Your task to perform on an android device: open app "LiveIn - Share Your Moment" (install if not already installed) and go to login screen Image 0: 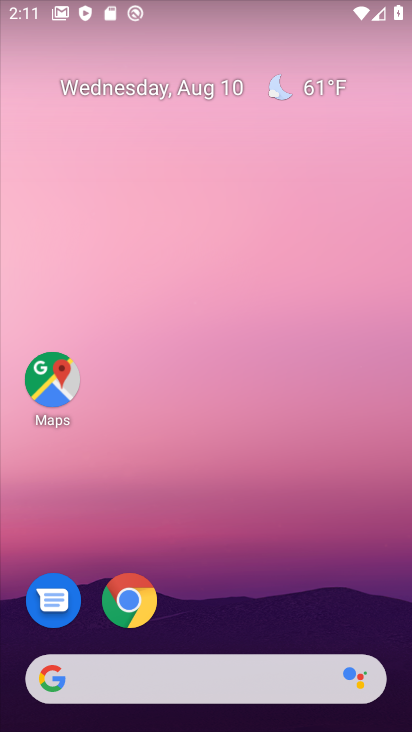
Step 0: drag from (285, 196) to (285, 82)
Your task to perform on an android device: open app "LiveIn - Share Your Moment" (install if not already installed) and go to login screen Image 1: 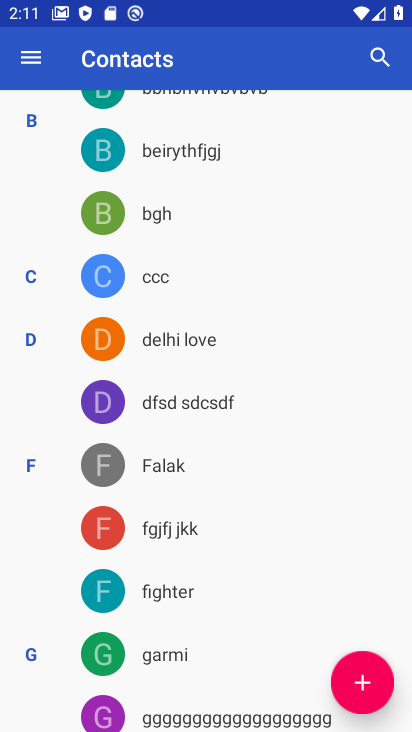
Step 1: press back button
Your task to perform on an android device: open app "LiveIn - Share Your Moment" (install if not already installed) and go to login screen Image 2: 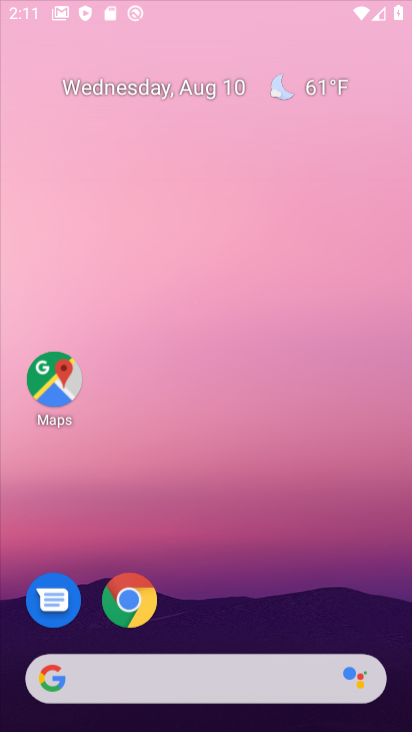
Step 2: press back button
Your task to perform on an android device: open app "LiveIn - Share Your Moment" (install if not already installed) and go to login screen Image 3: 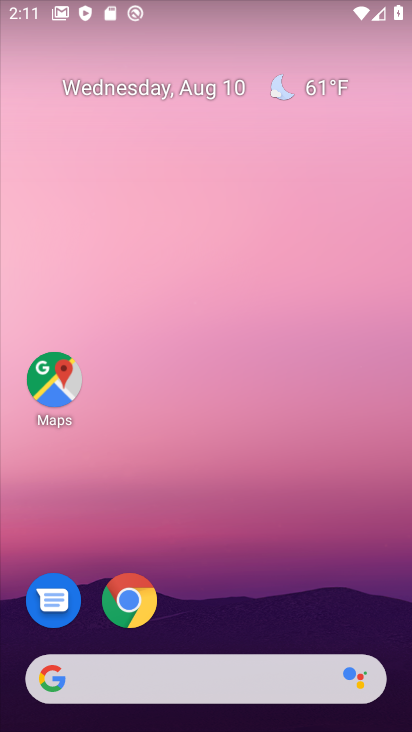
Step 3: drag from (230, 441) to (242, 59)
Your task to perform on an android device: open app "LiveIn - Share Your Moment" (install if not already installed) and go to login screen Image 4: 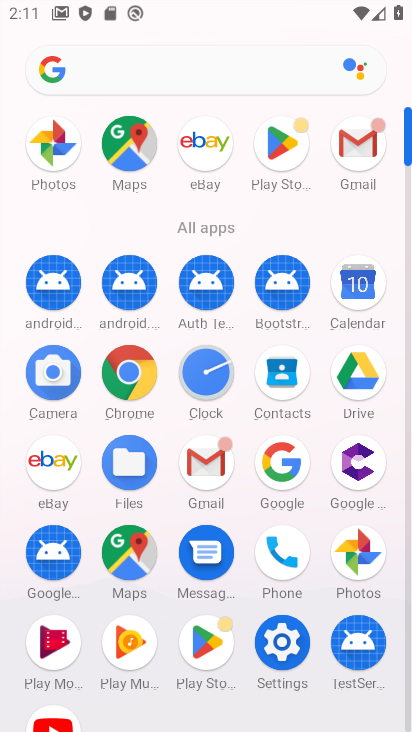
Step 4: click (292, 155)
Your task to perform on an android device: open app "LiveIn - Share Your Moment" (install if not already installed) and go to login screen Image 5: 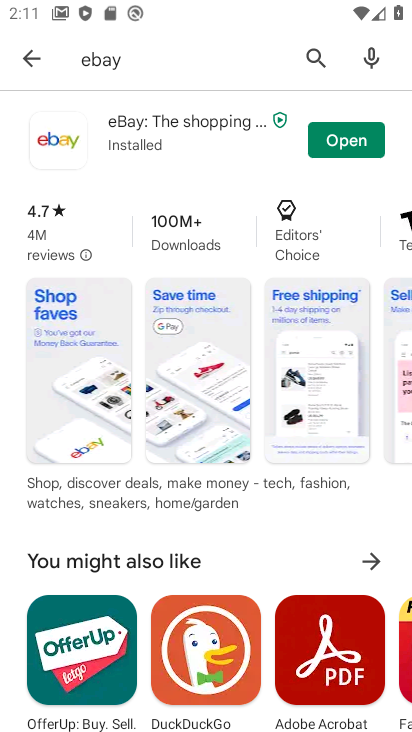
Step 5: click (312, 51)
Your task to perform on an android device: open app "LiveIn - Share Your Moment" (install if not already installed) and go to login screen Image 6: 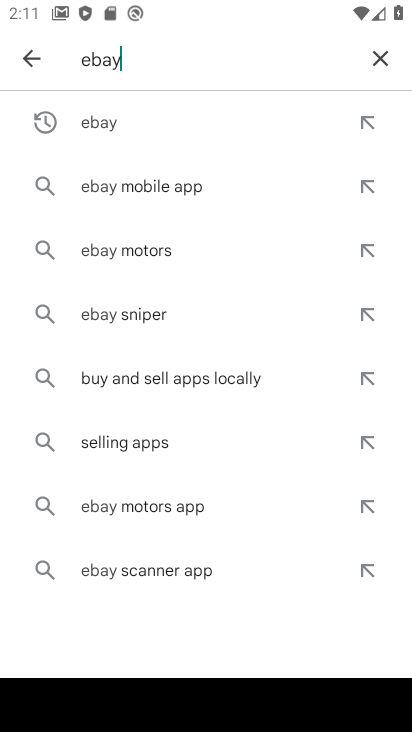
Step 6: click (374, 49)
Your task to perform on an android device: open app "LiveIn - Share Your Moment" (install if not already installed) and go to login screen Image 7: 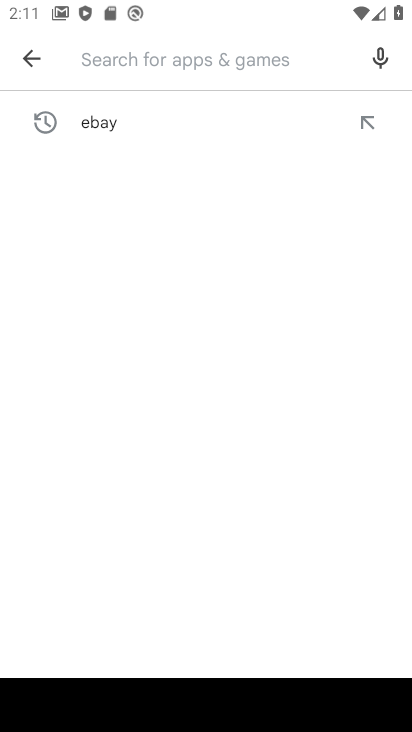
Step 7: click (102, 71)
Your task to perform on an android device: open app "LiveIn - Share Your Moment" (install if not already installed) and go to login screen Image 8: 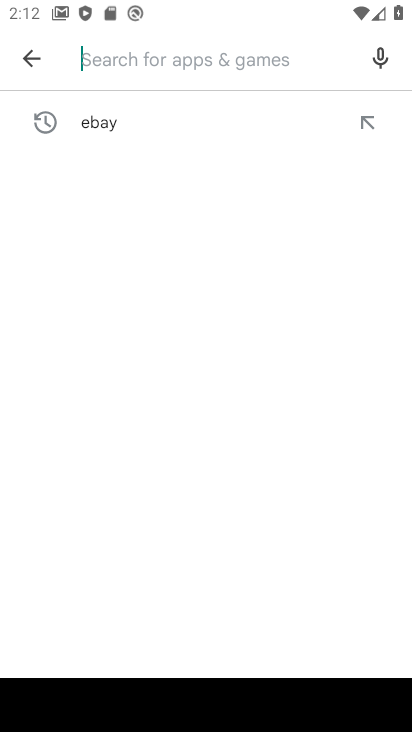
Step 8: type "LiveIn"
Your task to perform on an android device: open app "LiveIn - Share Your Moment" (install if not already installed) and go to login screen Image 9: 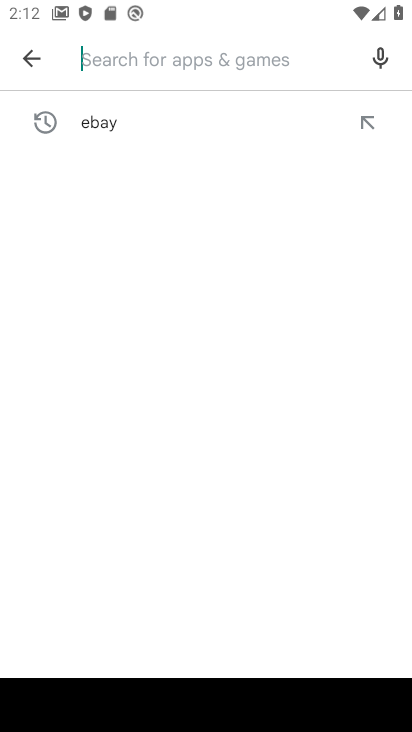
Step 9: click (192, 195)
Your task to perform on an android device: open app "LiveIn - Share Your Moment" (install if not already installed) and go to login screen Image 10: 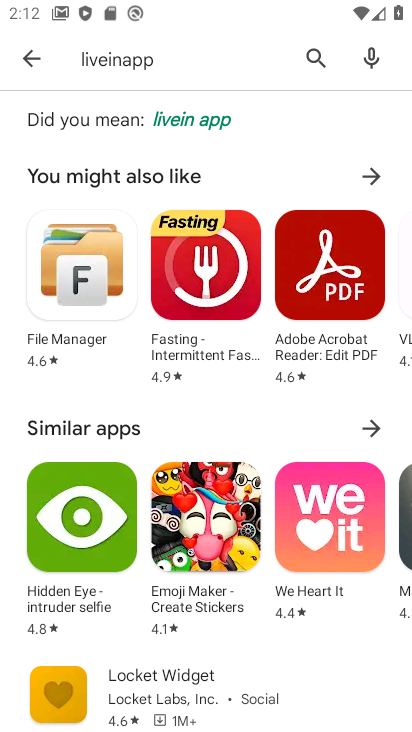
Step 10: task complete